Your task to perform on an android device: turn off airplane mode Image 0: 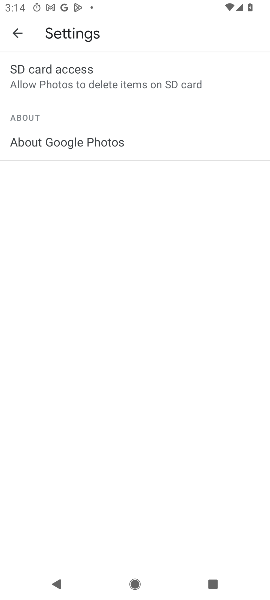
Step 0: press home button
Your task to perform on an android device: turn off airplane mode Image 1: 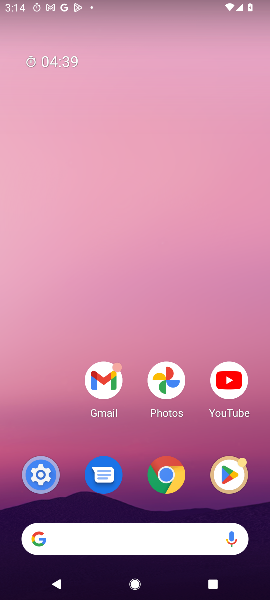
Step 1: drag from (64, 435) to (33, 152)
Your task to perform on an android device: turn off airplane mode Image 2: 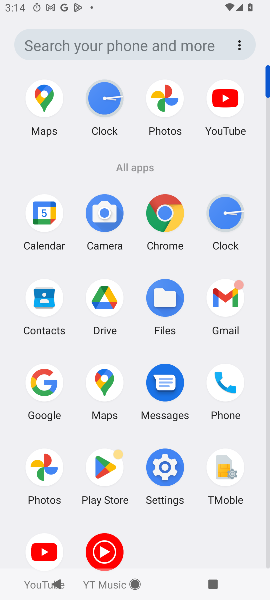
Step 2: click (170, 467)
Your task to perform on an android device: turn off airplane mode Image 3: 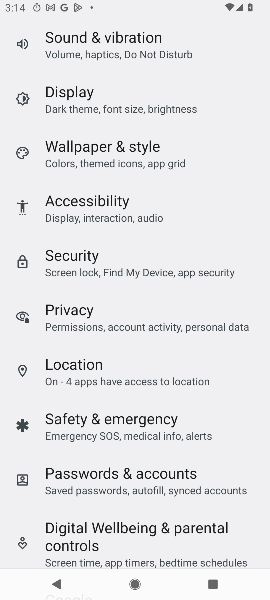
Step 3: drag from (238, 344) to (240, 417)
Your task to perform on an android device: turn off airplane mode Image 4: 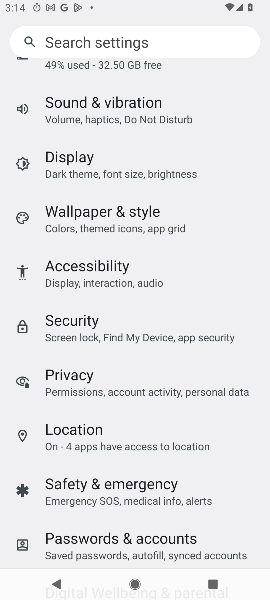
Step 4: drag from (224, 236) to (195, 323)
Your task to perform on an android device: turn off airplane mode Image 5: 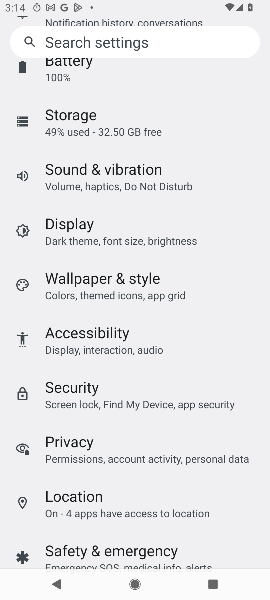
Step 5: drag from (212, 217) to (200, 312)
Your task to perform on an android device: turn off airplane mode Image 6: 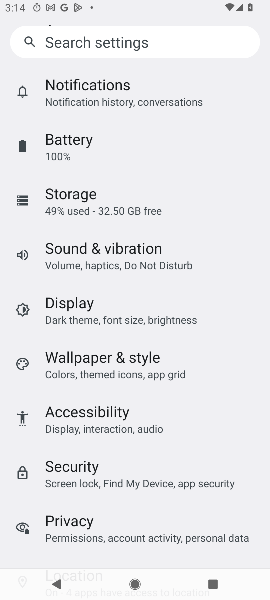
Step 6: drag from (204, 197) to (206, 287)
Your task to perform on an android device: turn off airplane mode Image 7: 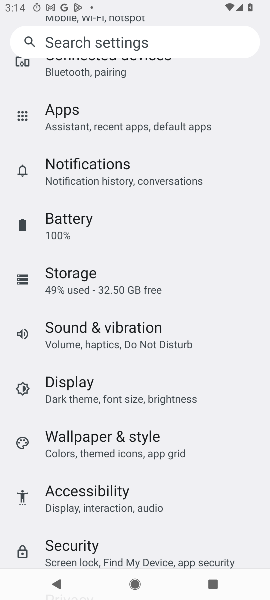
Step 7: drag from (232, 159) to (235, 244)
Your task to perform on an android device: turn off airplane mode Image 8: 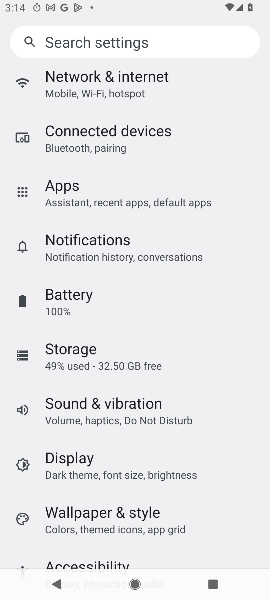
Step 8: drag from (229, 158) to (229, 228)
Your task to perform on an android device: turn off airplane mode Image 9: 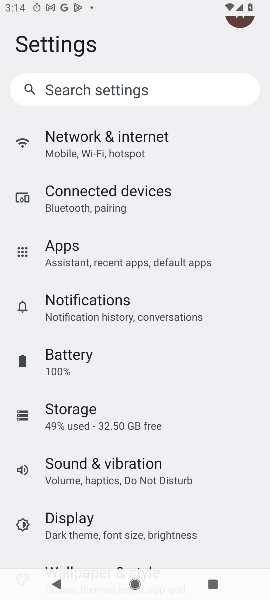
Step 9: click (194, 138)
Your task to perform on an android device: turn off airplane mode Image 10: 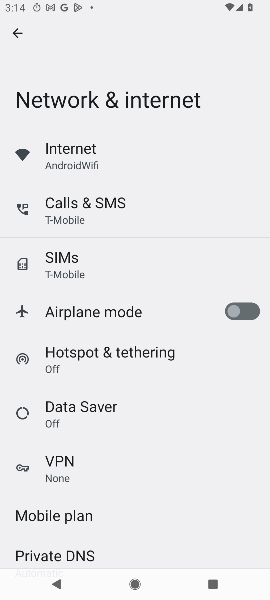
Step 10: task complete